Your task to perform on an android device: What's on my calendar tomorrow? Image 0: 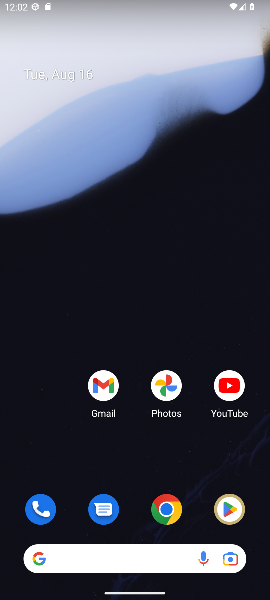
Step 0: drag from (136, 509) to (187, 89)
Your task to perform on an android device: What's on my calendar tomorrow? Image 1: 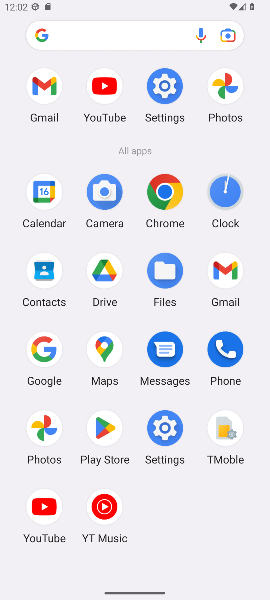
Step 1: click (42, 198)
Your task to perform on an android device: What's on my calendar tomorrow? Image 2: 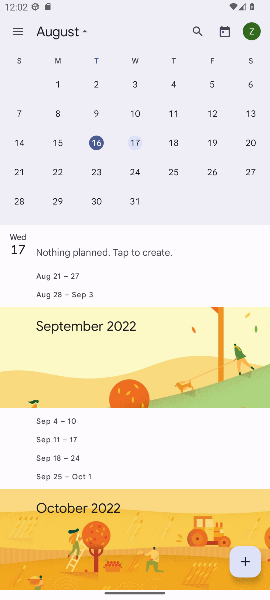
Step 2: click (126, 141)
Your task to perform on an android device: What's on my calendar tomorrow? Image 3: 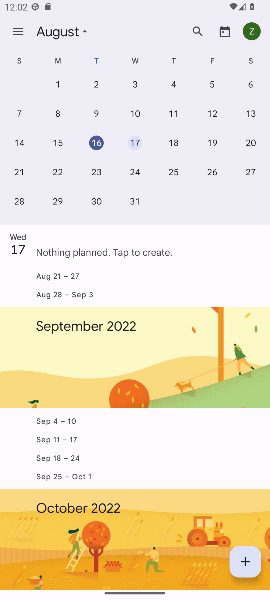
Step 3: click (131, 140)
Your task to perform on an android device: What's on my calendar tomorrow? Image 4: 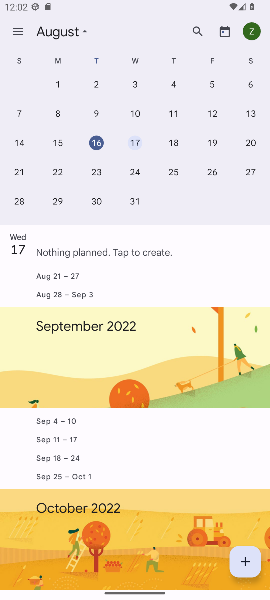
Step 4: task complete